Your task to perform on an android device: change the upload size in google photos Image 0: 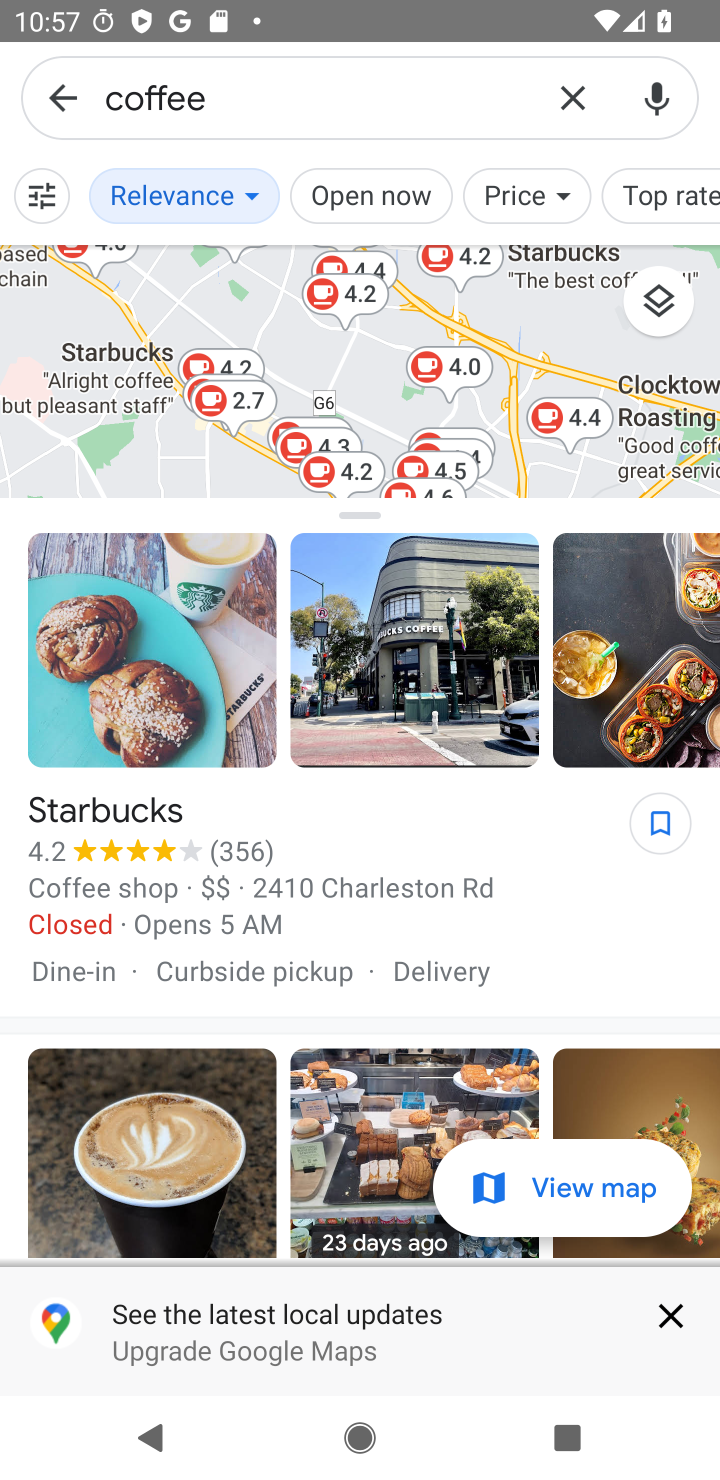
Step 0: press home button
Your task to perform on an android device: change the upload size in google photos Image 1: 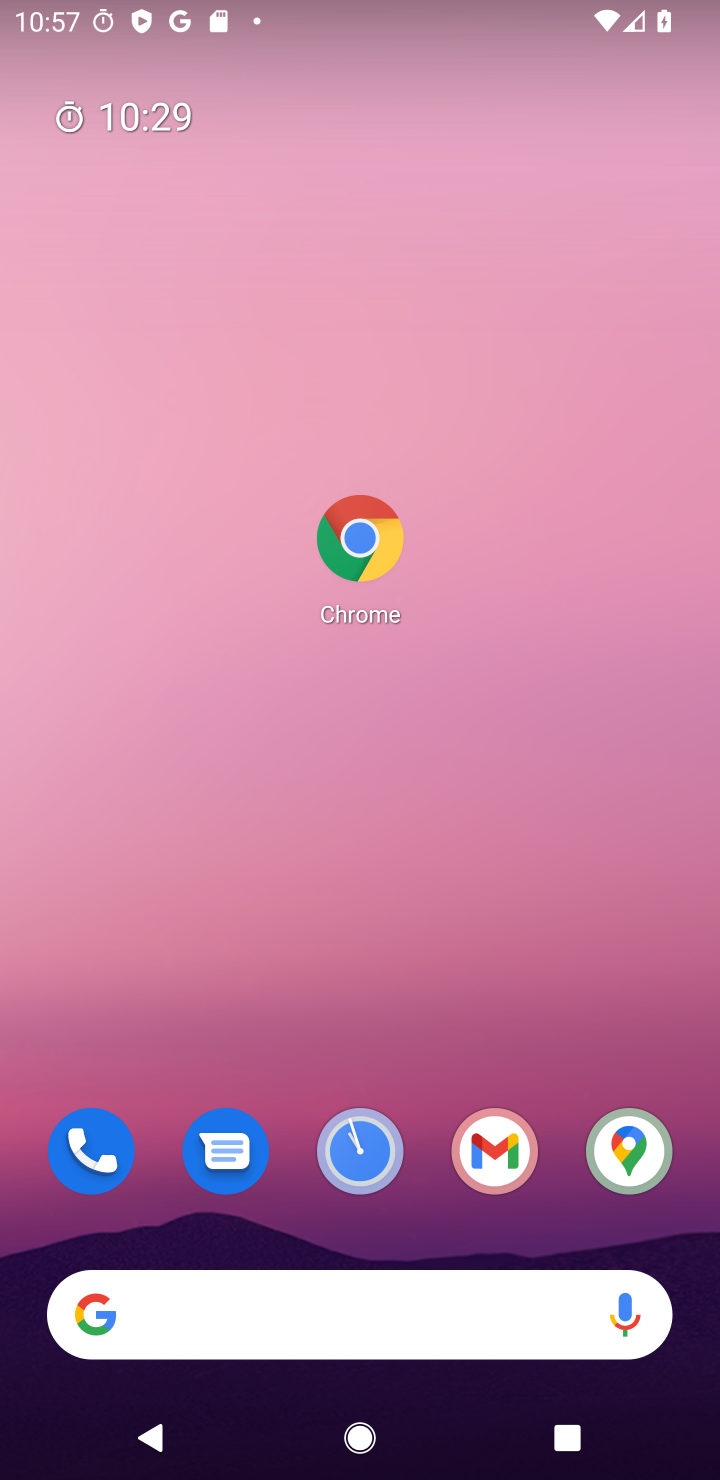
Step 1: drag from (572, 1096) to (379, 194)
Your task to perform on an android device: change the upload size in google photos Image 2: 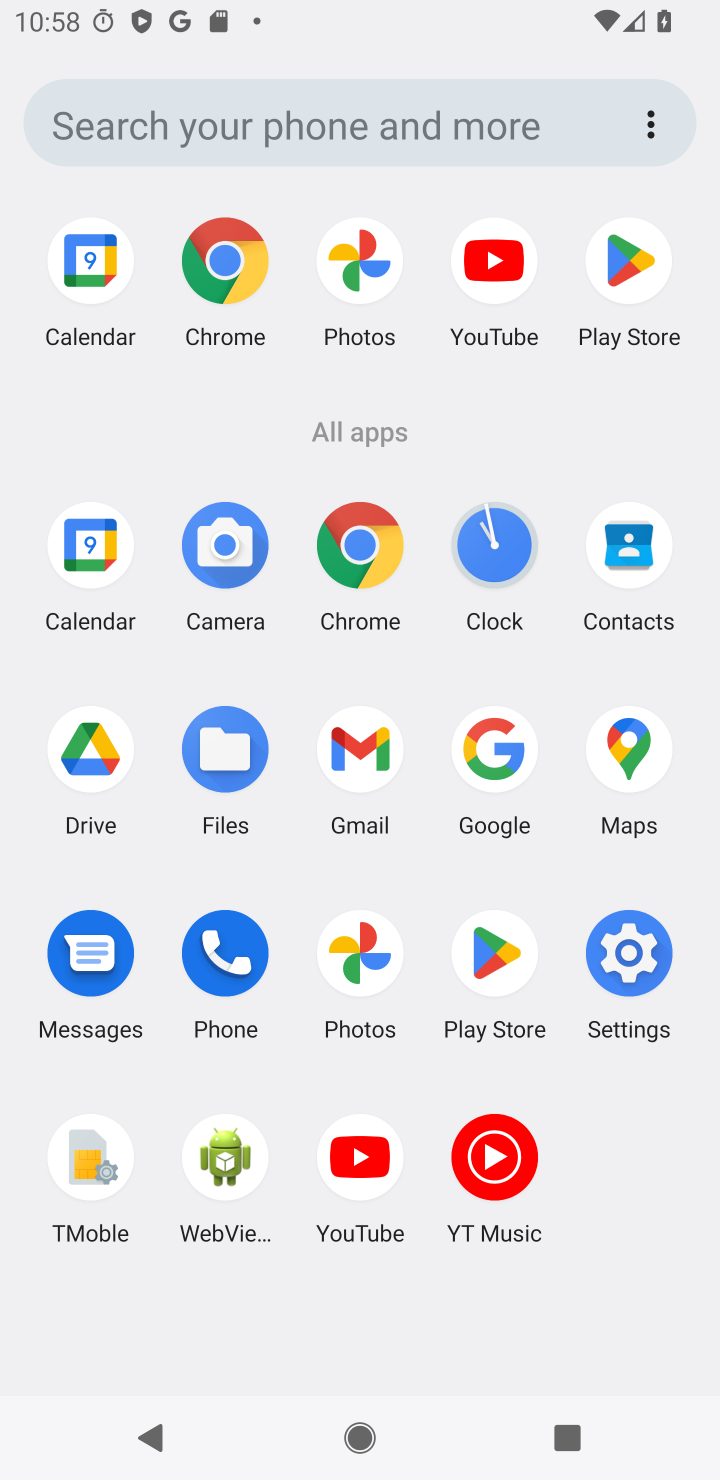
Step 2: click (357, 936)
Your task to perform on an android device: change the upload size in google photos Image 3: 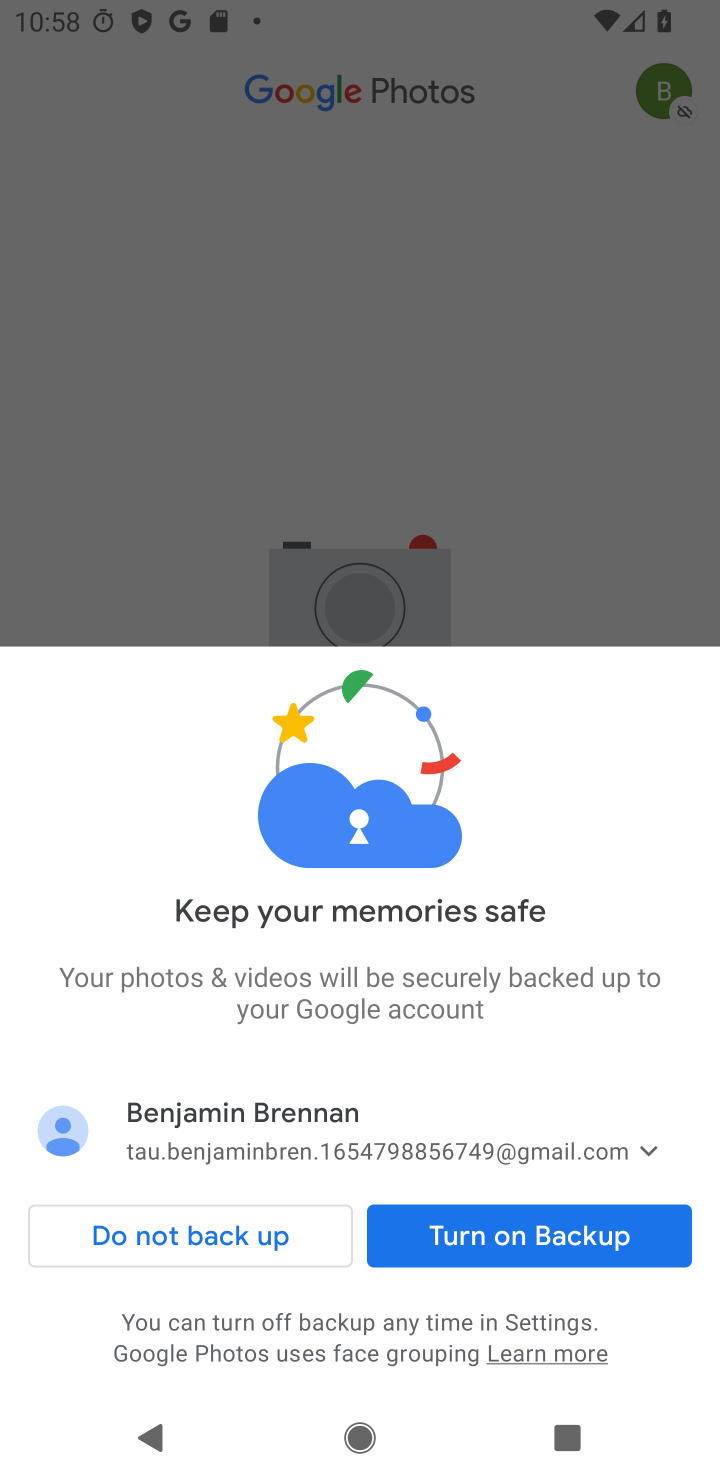
Step 3: click (543, 1241)
Your task to perform on an android device: change the upload size in google photos Image 4: 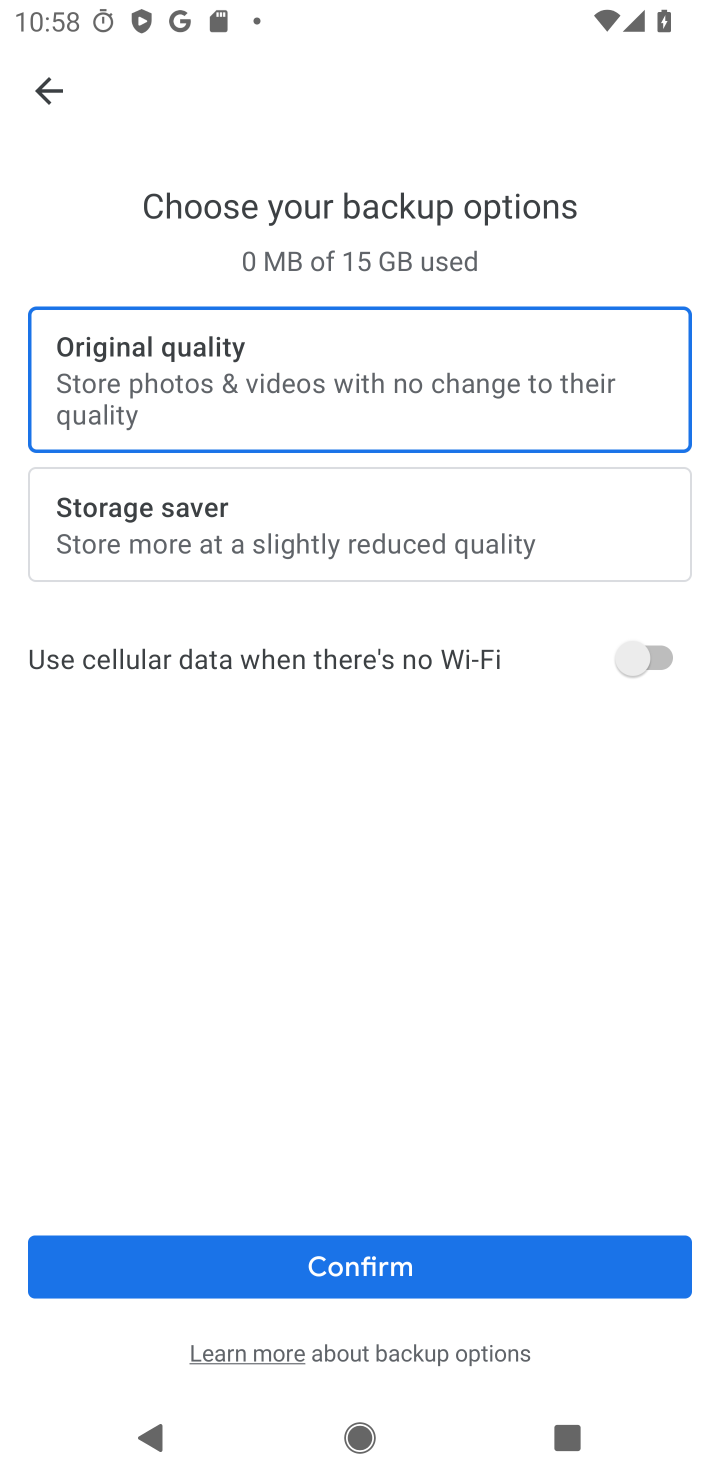
Step 4: click (543, 1241)
Your task to perform on an android device: change the upload size in google photos Image 5: 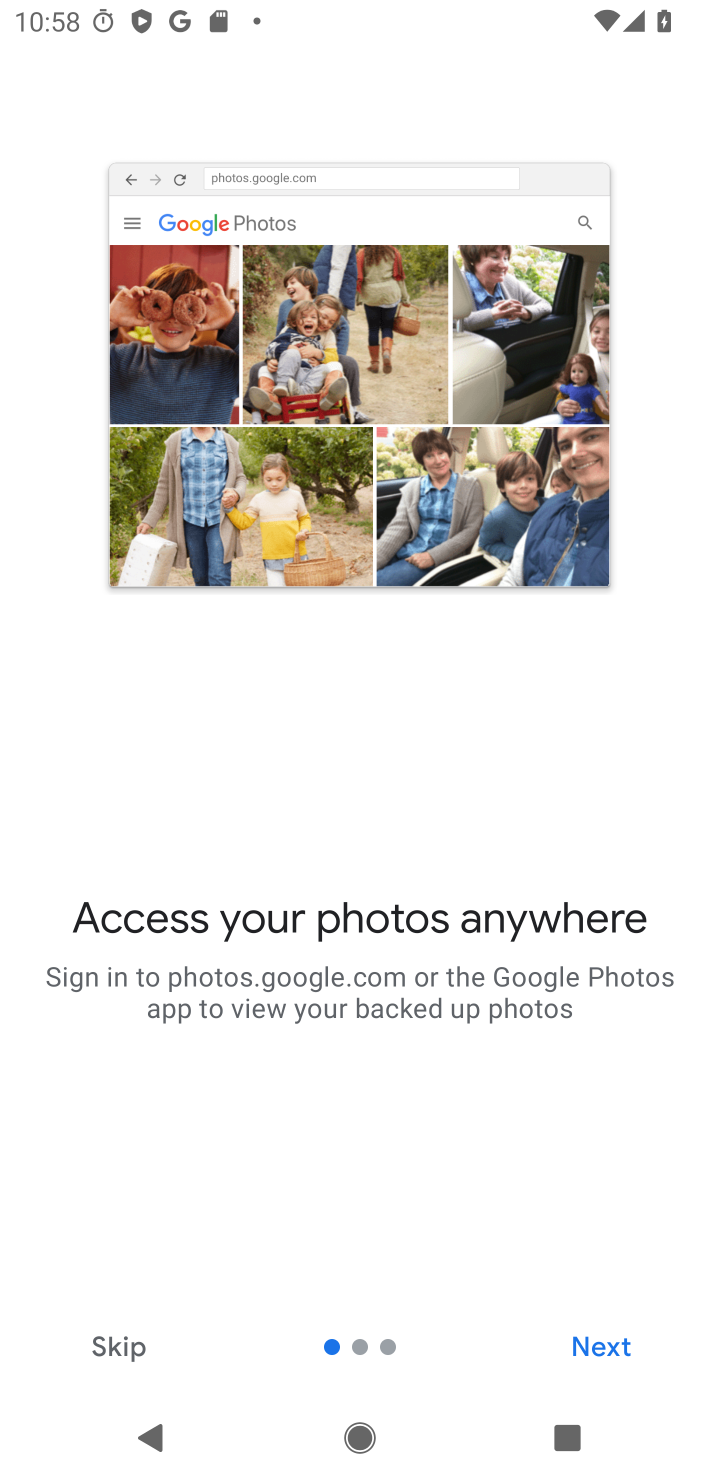
Step 5: click (80, 1342)
Your task to perform on an android device: change the upload size in google photos Image 6: 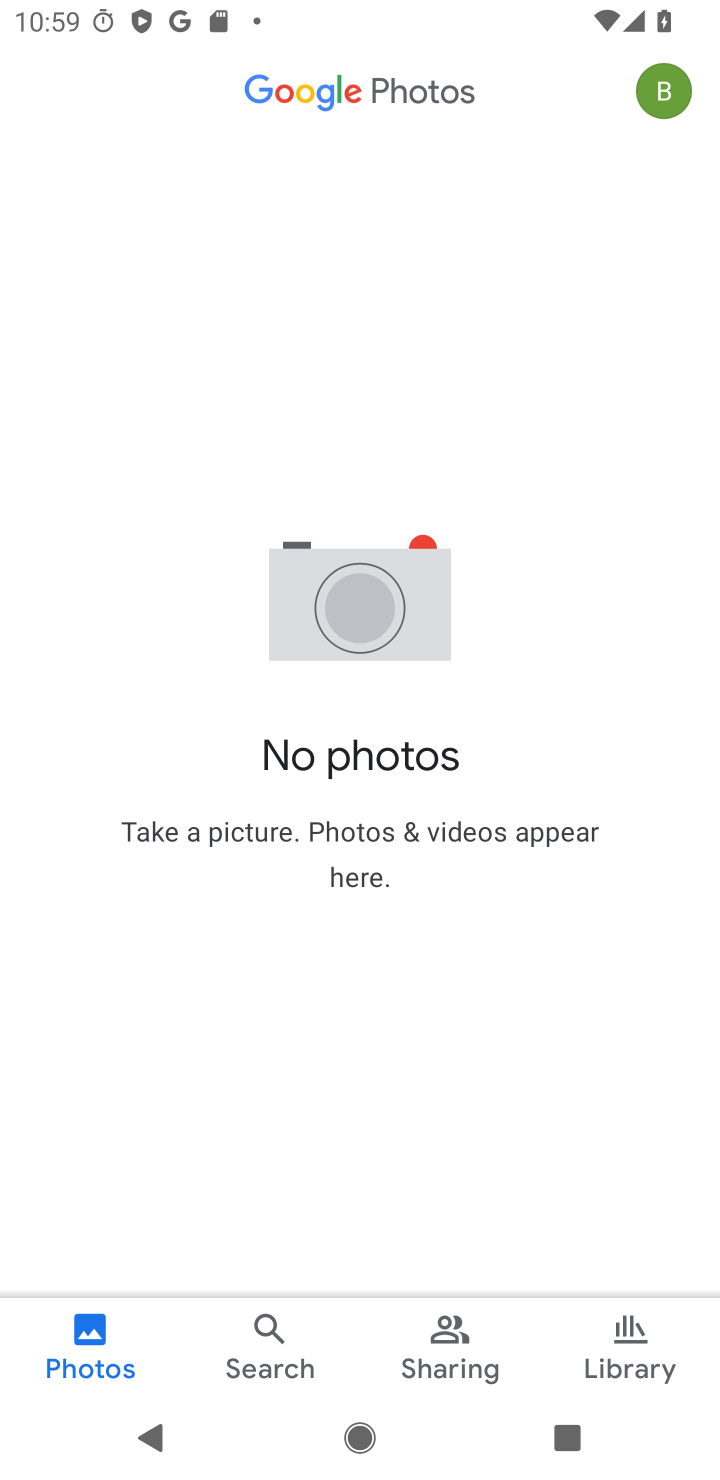
Step 6: click (677, 108)
Your task to perform on an android device: change the upload size in google photos Image 7: 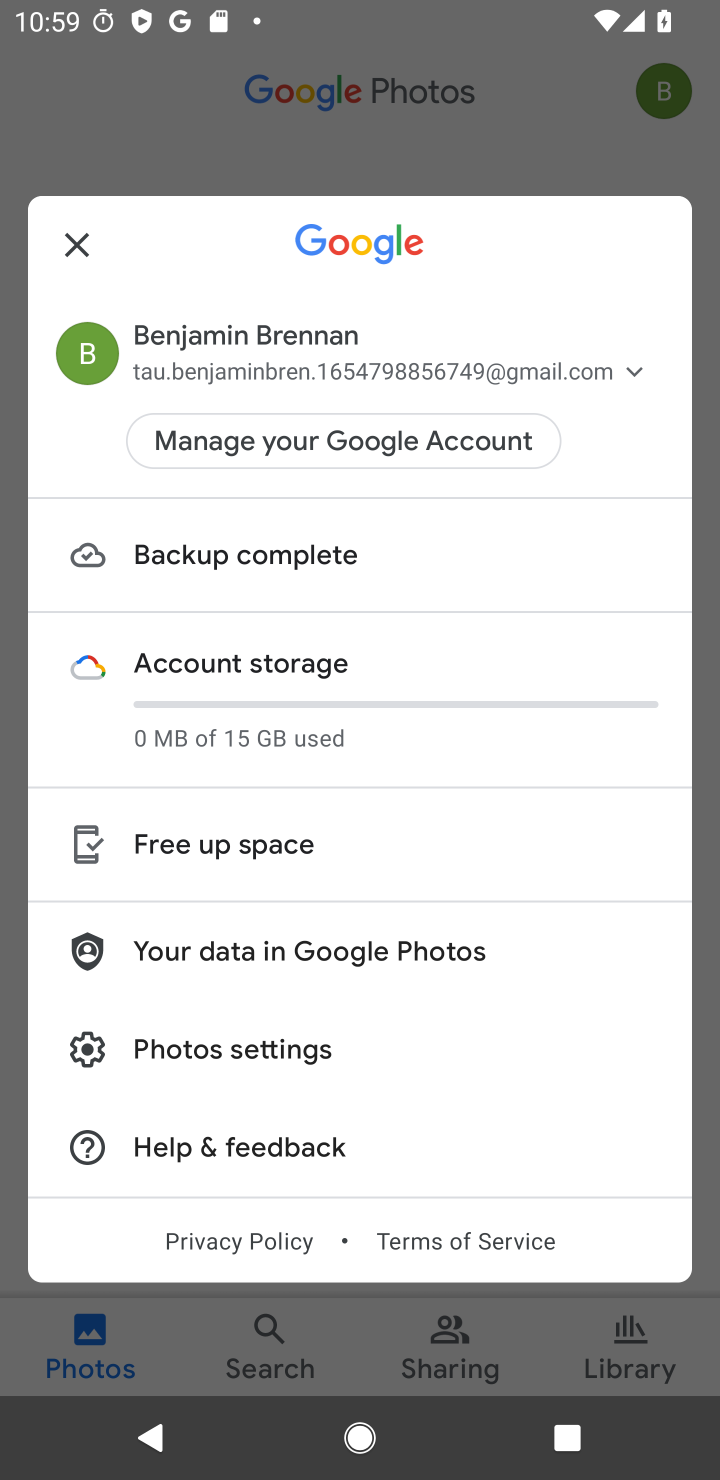
Step 7: click (270, 1047)
Your task to perform on an android device: change the upload size in google photos Image 8: 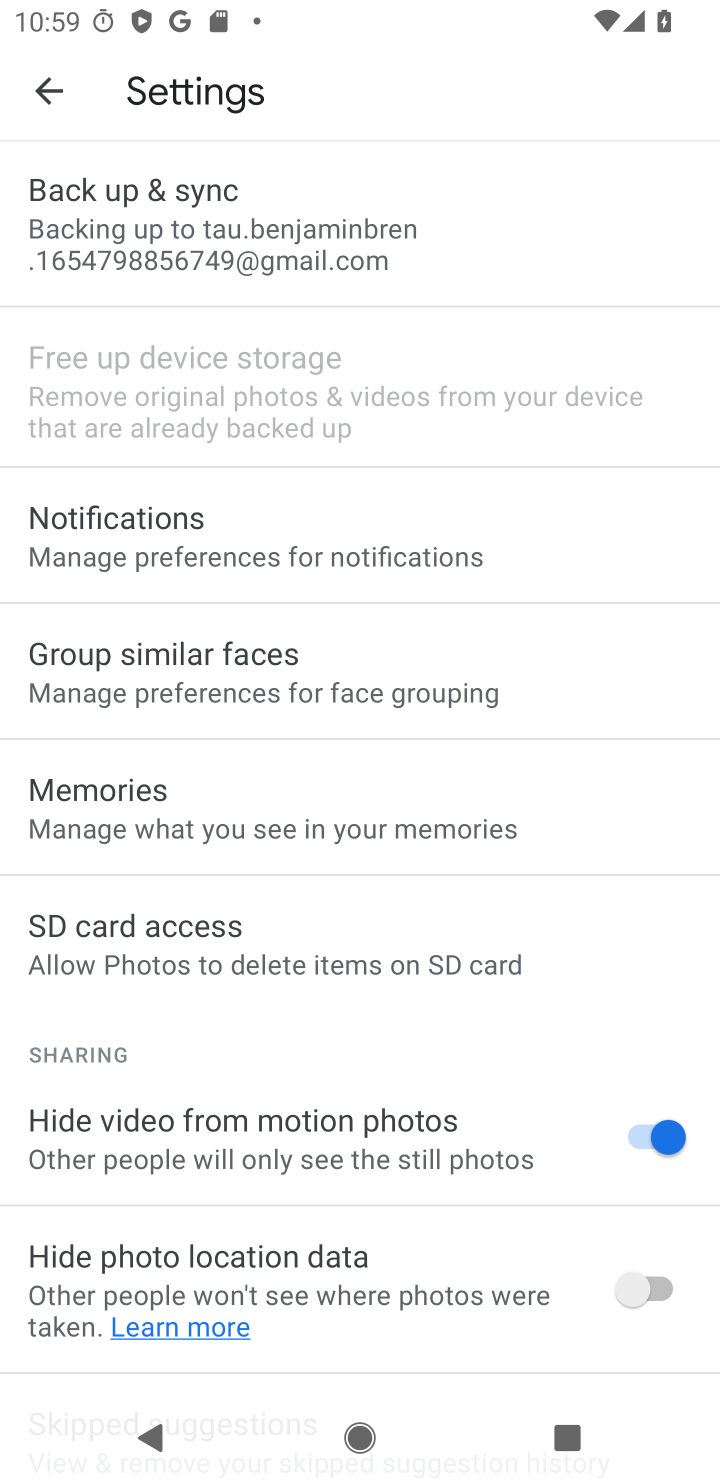
Step 8: click (169, 215)
Your task to perform on an android device: change the upload size in google photos Image 9: 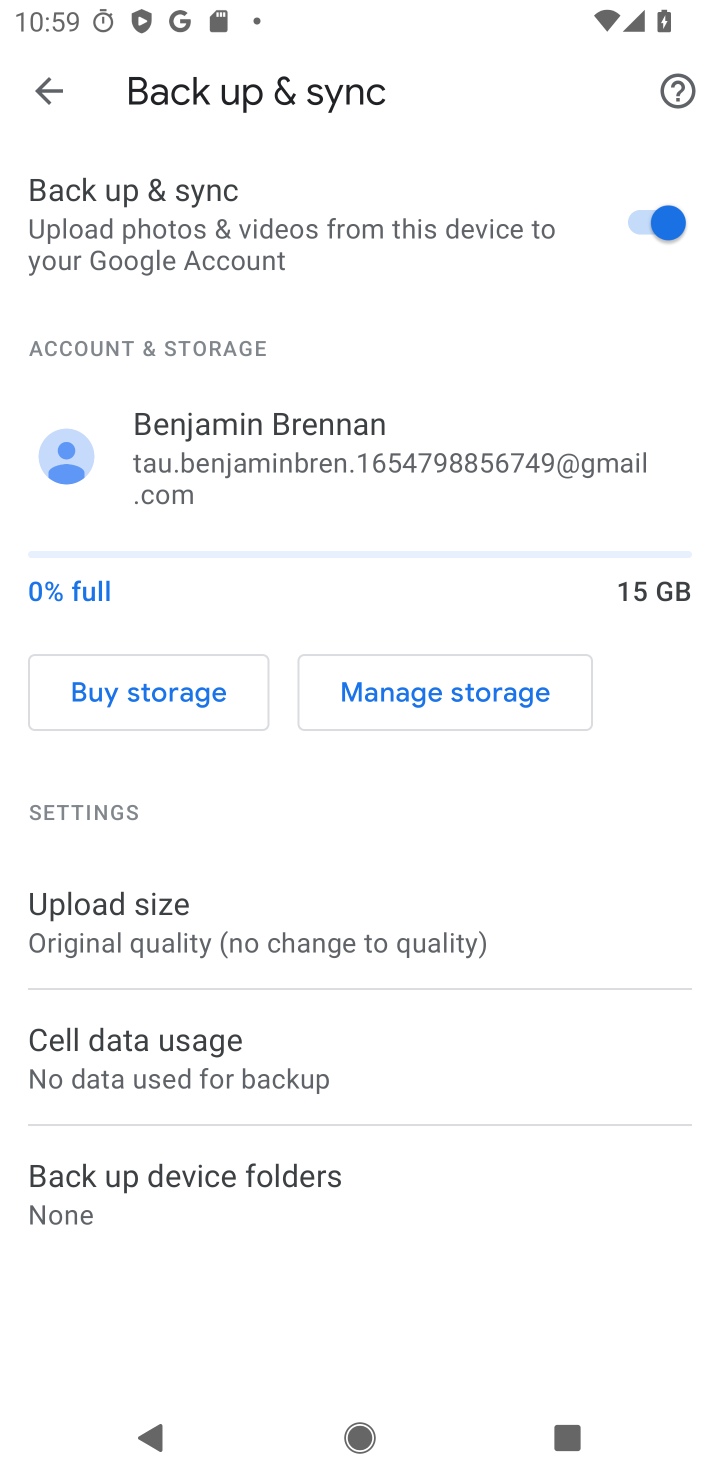
Step 9: click (205, 936)
Your task to perform on an android device: change the upload size in google photos Image 10: 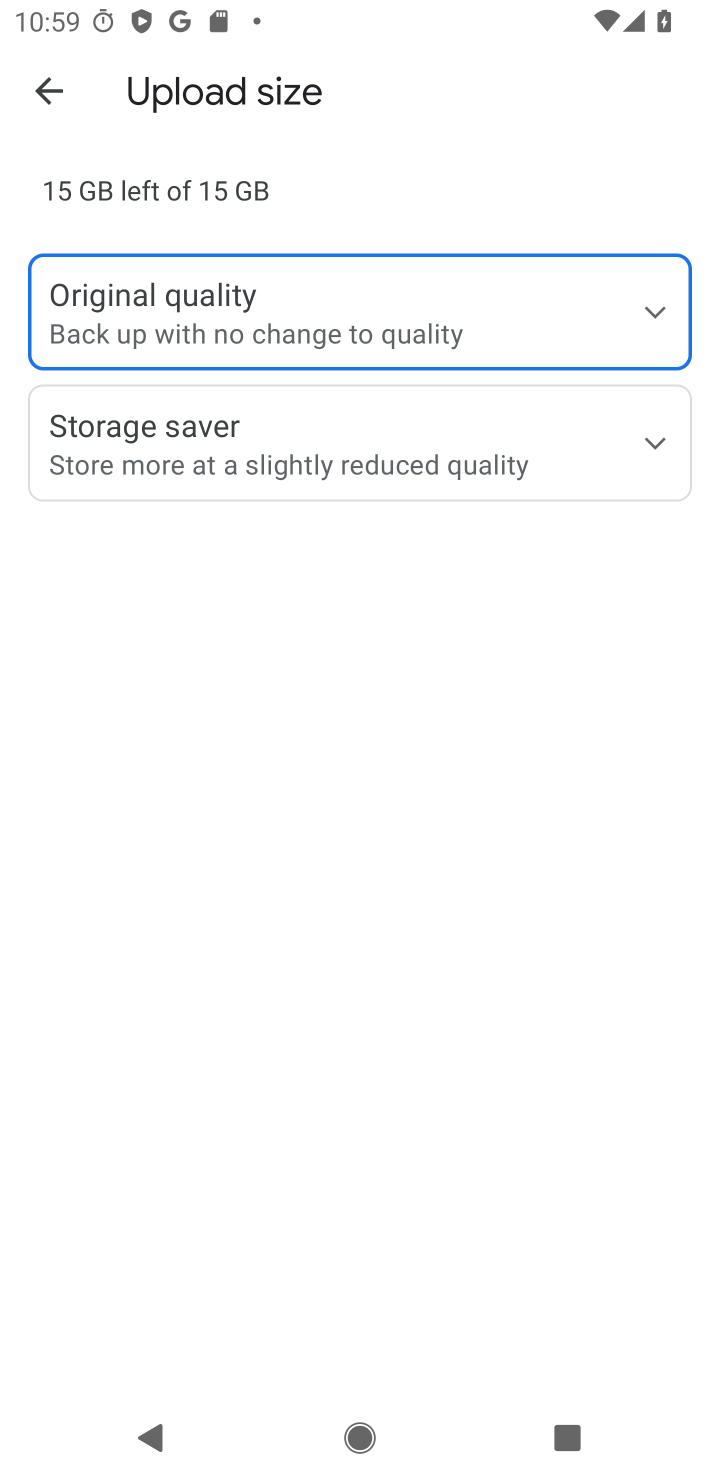
Step 10: click (202, 442)
Your task to perform on an android device: change the upload size in google photos Image 11: 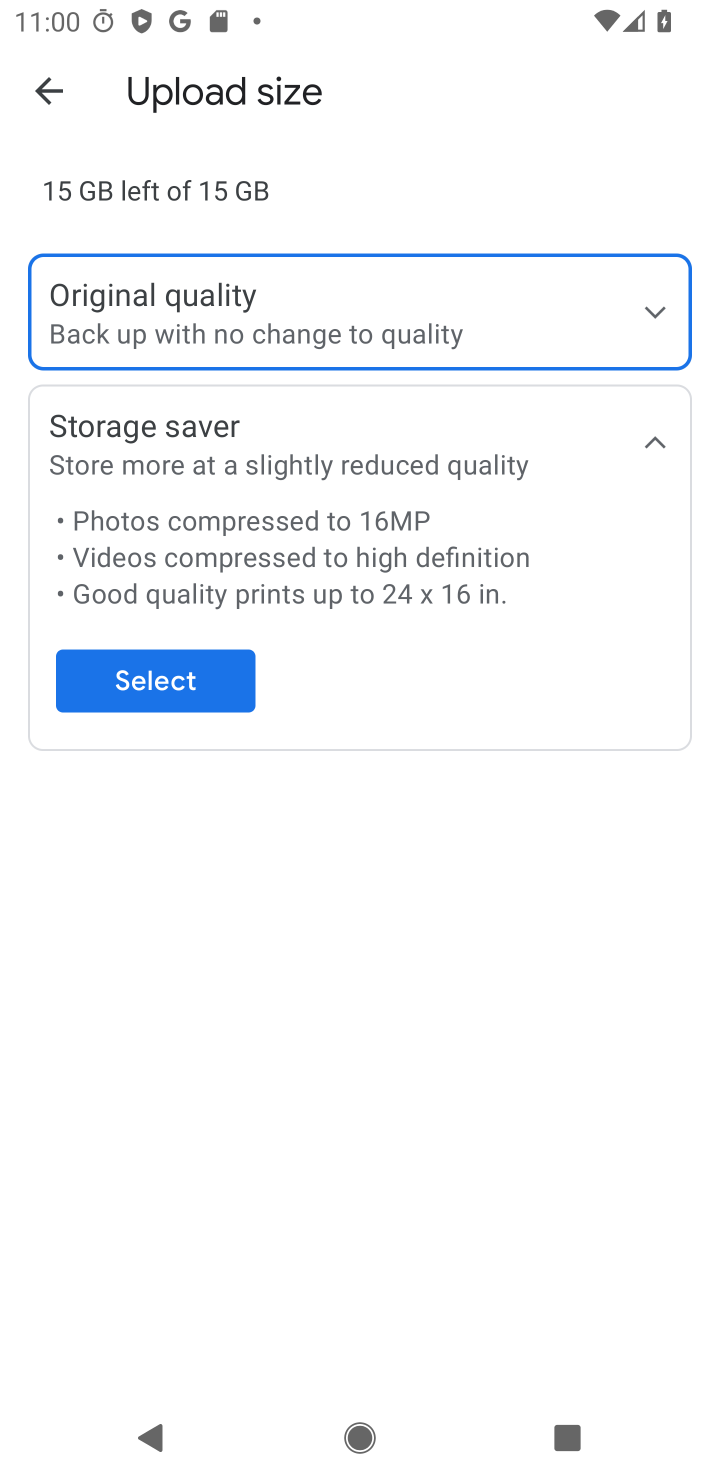
Step 11: click (207, 683)
Your task to perform on an android device: change the upload size in google photos Image 12: 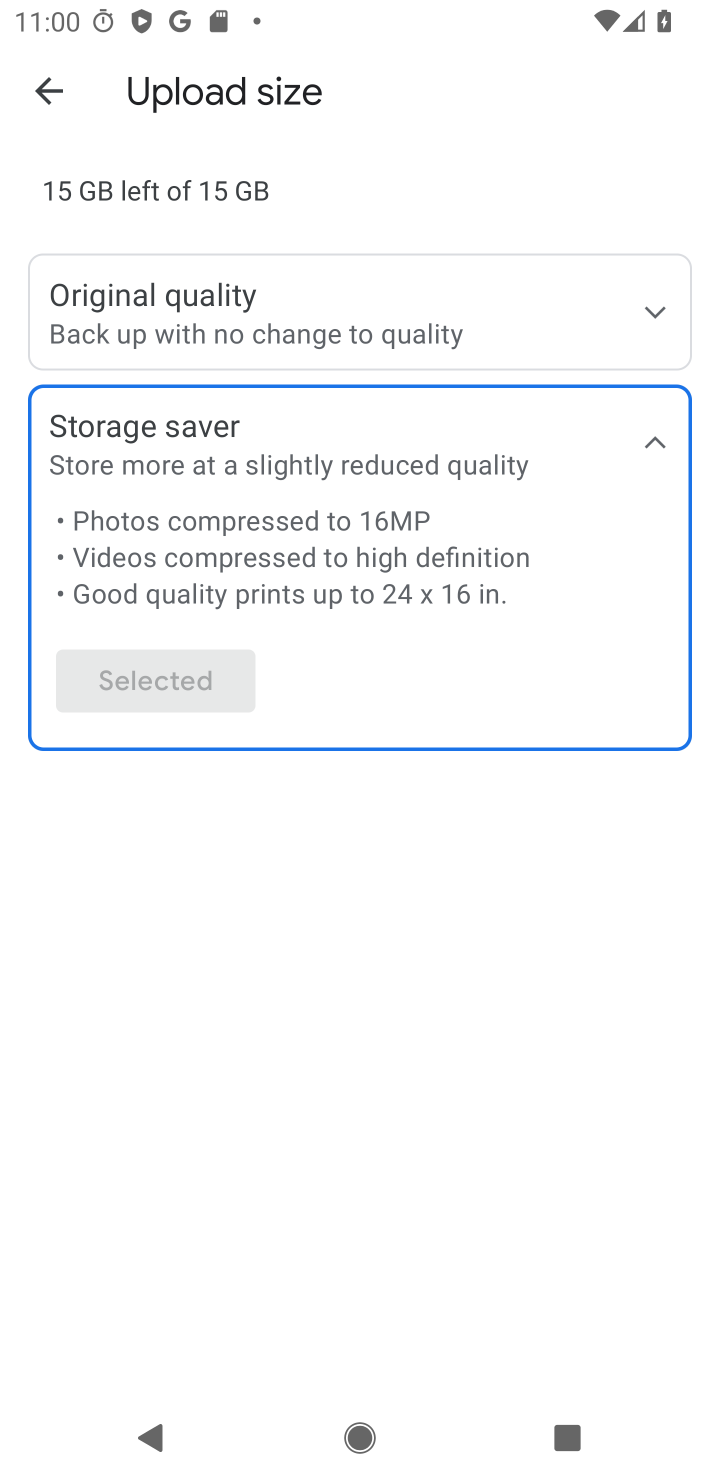
Step 12: task complete